Your task to perform on an android device: visit the assistant section in the google photos Image 0: 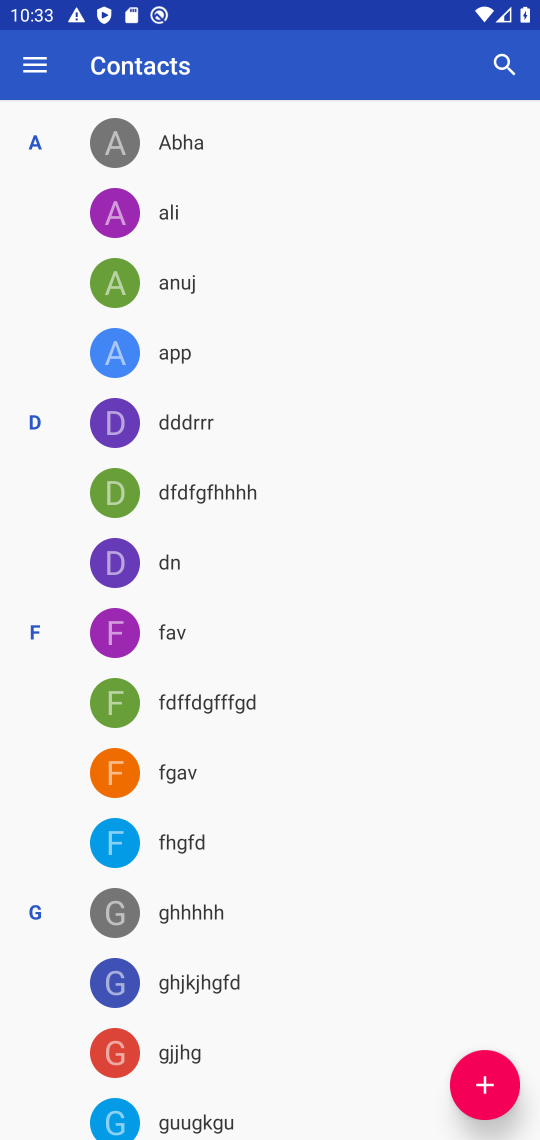
Step 0: task complete